Your task to perform on an android device: find photos in the google photos app Image 0: 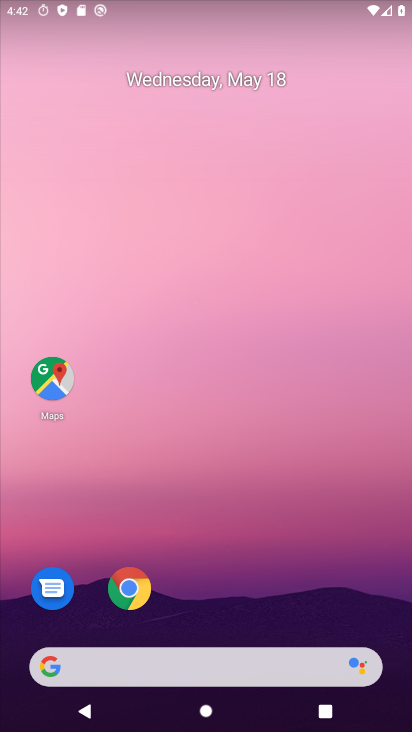
Step 0: drag from (187, 617) to (223, 89)
Your task to perform on an android device: find photos in the google photos app Image 1: 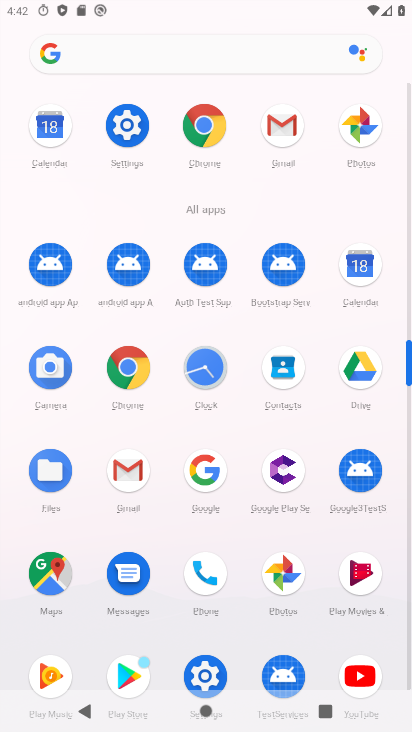
Step 1: click (360, 124)
Your task to perform on an android device: find photos in the google photos app Image 2: 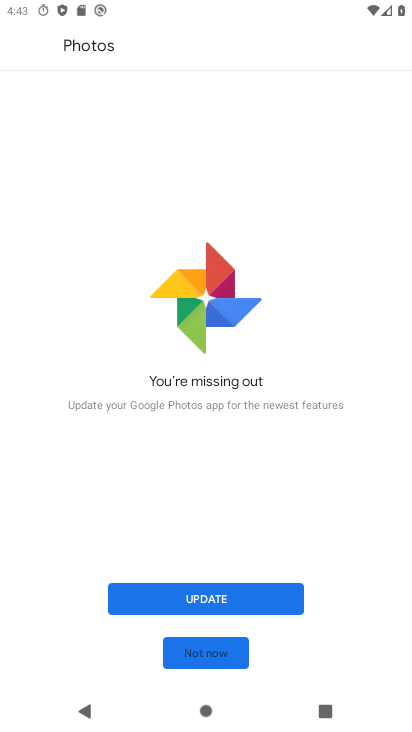
Step 2: click (182, 607)
Your task to perform on an android device: find photos in the google photos app Image 3: 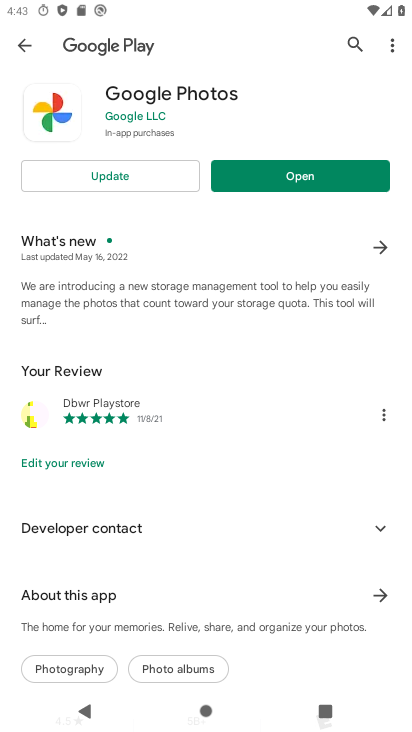
Step 3: click (143, 174)
Your task to perform on an android device: find photos in the google photos app Image 4: 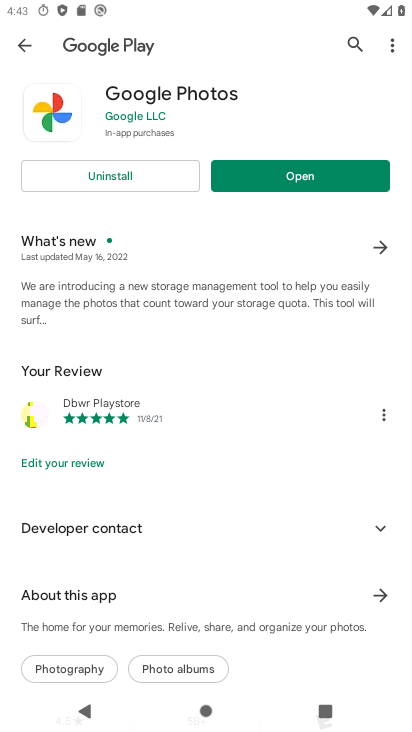
Step 4: click (240, 170)
Your task to perform on an android device: find photos in the google photos app Image 5: 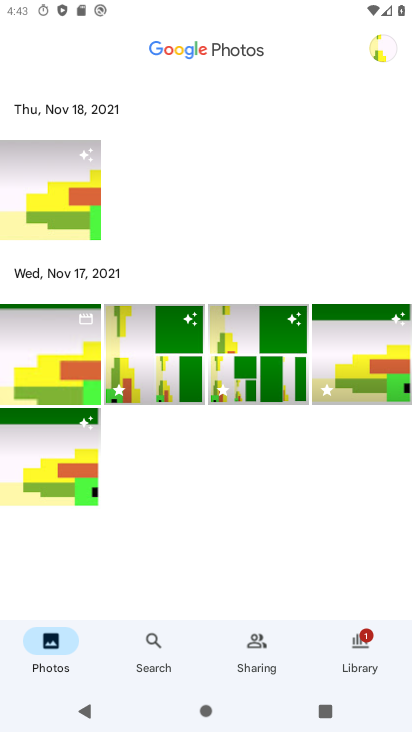
Step 5: click (38, 652)
Your task to perform on an android device: find photos in the google photos app Image 6: 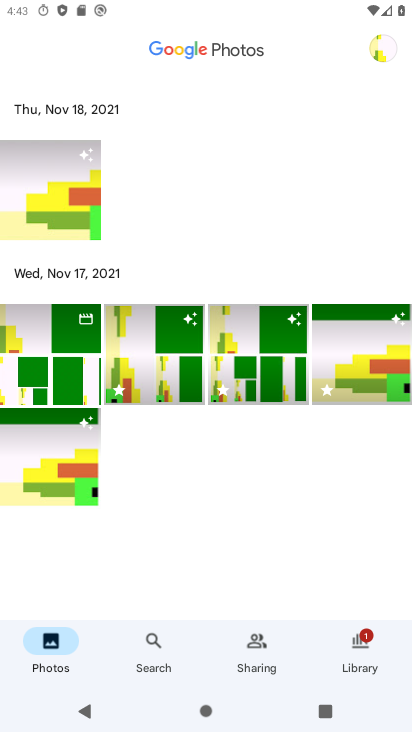
Step 6: task complete